Your task to perform on an android device: Go to internet settings Image 0: 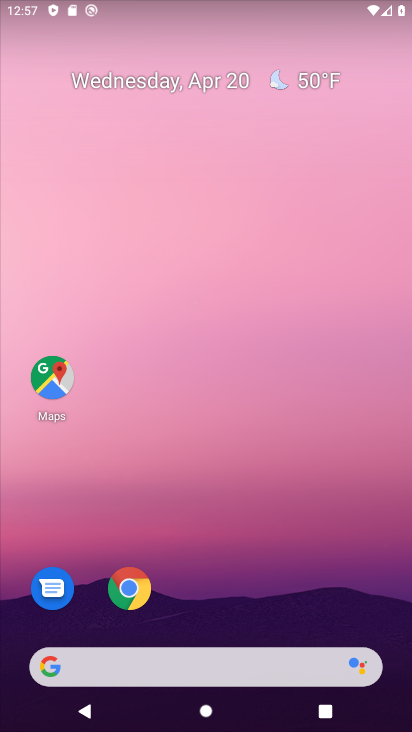
Step 0: drag from (183, 636) to (259, 180)
Your task to perform on an android device: Go to internet settings Image 1: 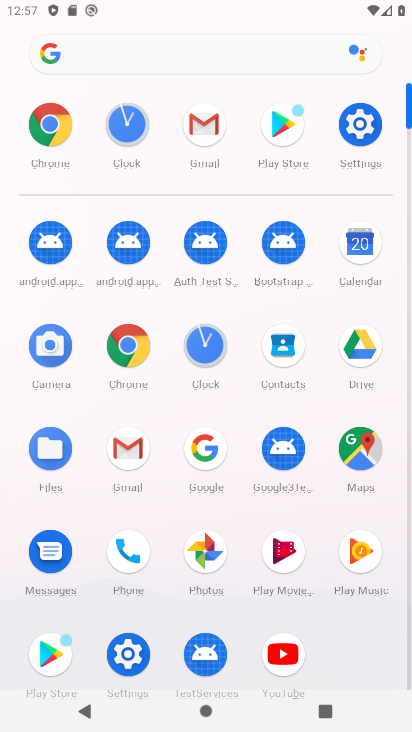
Step 1: click (355, 122)
Your task to perform on an android device: Go to internet settings Image 2: 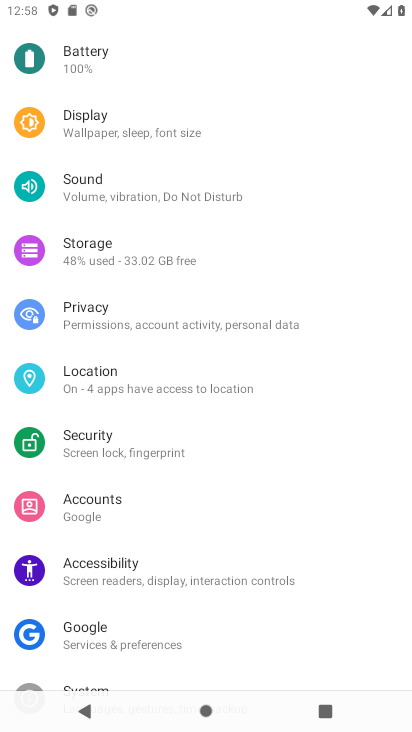
Step 2: drag from (177, 111) to (183, 483)
Your task to perform on an android device: Go to internet settings Image 3: 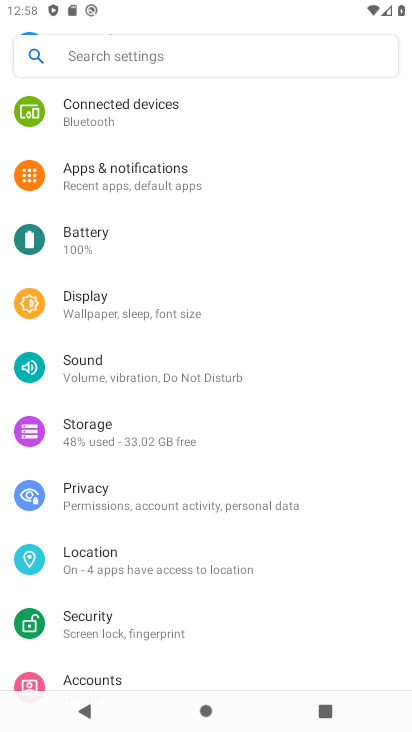
Step 3: drag from (165, 119) to (144, 548)
Your task to perform on an android device: Go to internet settings Image 4: 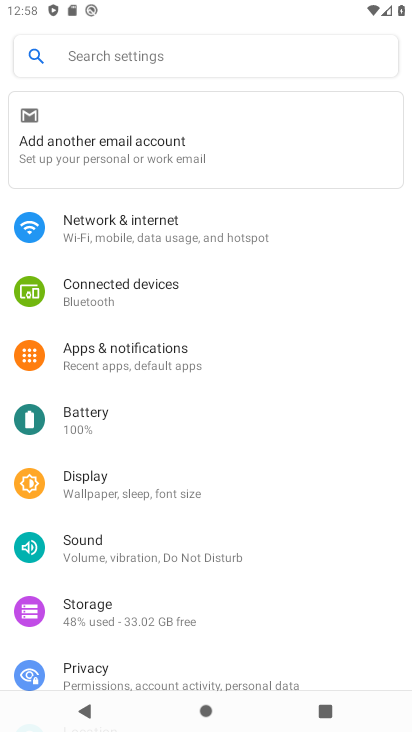
Step 4: click (137, 236)
Your task to perform on an android device: Go to internet settings Image 5: 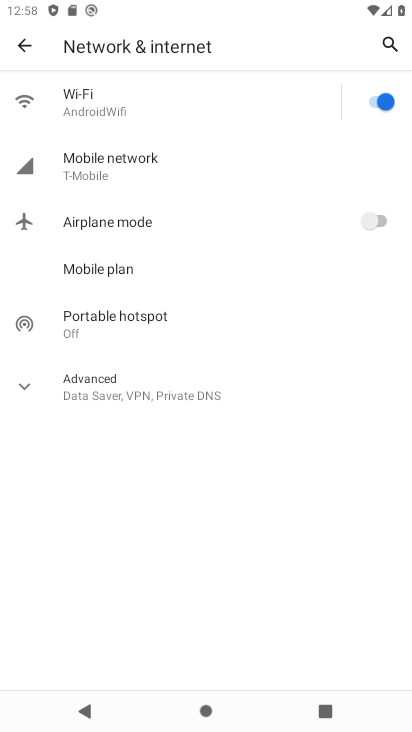
Step 5: click (113, 388)
Your task to perform on an android device: Go to internet settings Image 6: 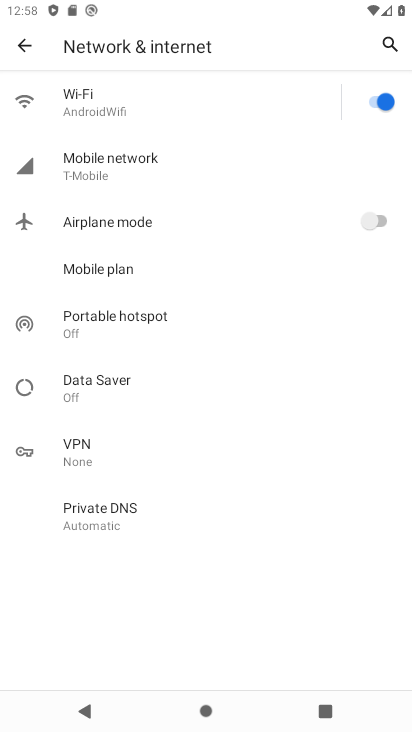
Step 6: task complete